Your task to perform on an android device: check android version Image 0: 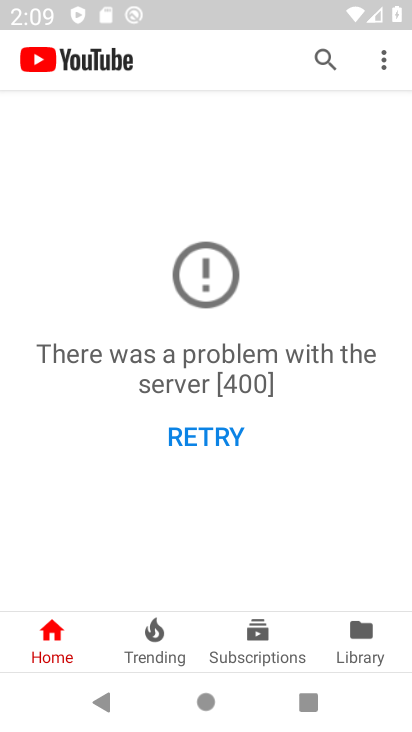
Step 0: press home button
Your task to perform on an android device: check android version Image 1: 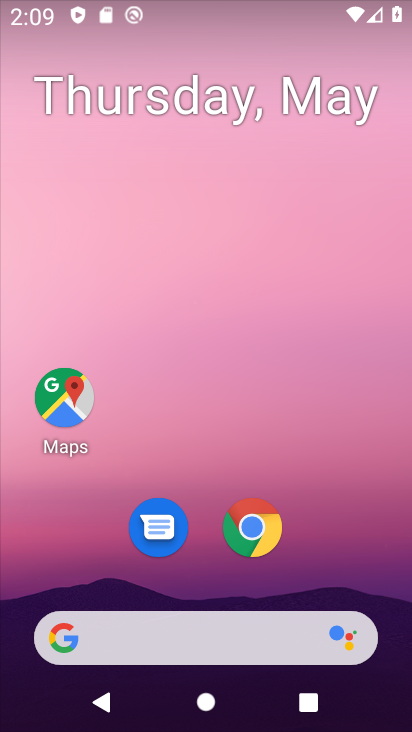
Step 1: drag from (322, 547) to (312, 309)
Your task to perform on an android device: check android version Image 2: 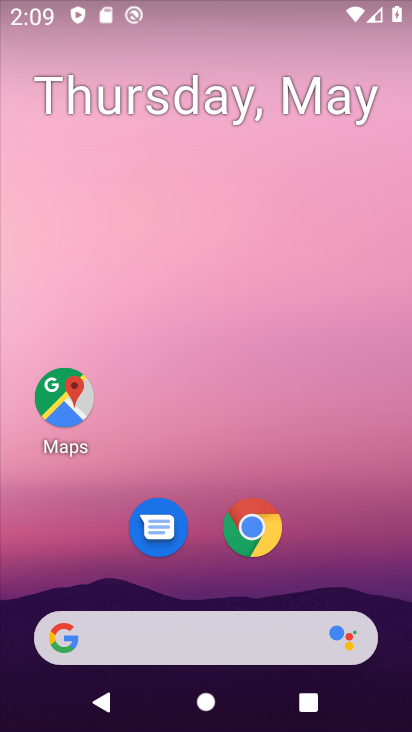
Step 2: drag from (348, 549) to (341, 343)
Your task to perform on an android device: check android version Image 3: 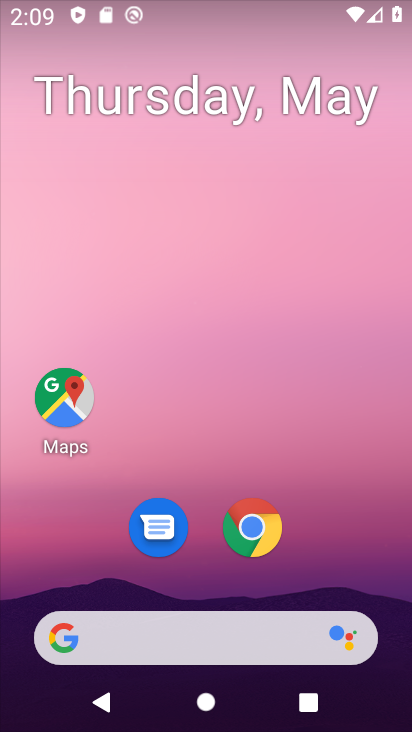
Step 3: drag from (352, 496) to (273, 110)
Your task to perform on an android device: check android version Image 4: 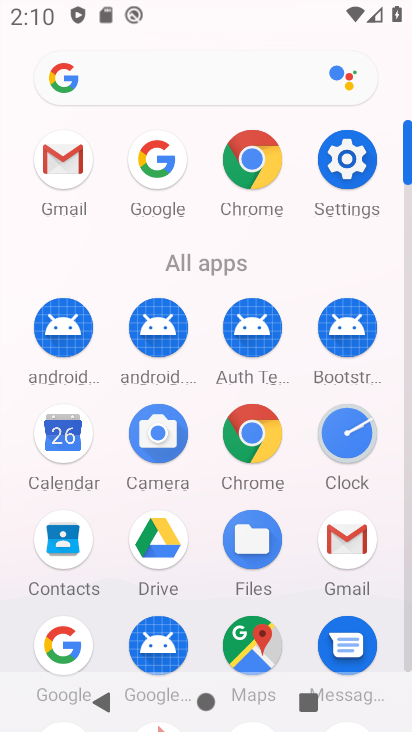
Step 4: click (409, 665)
Your task to perform on an android device: check android version Image 5: 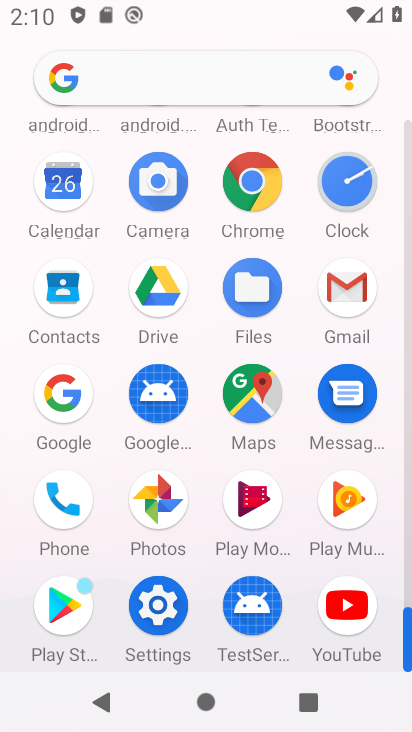
Step 5: click (159, 612)
Your task to perform on an android device: check android version Image 6: 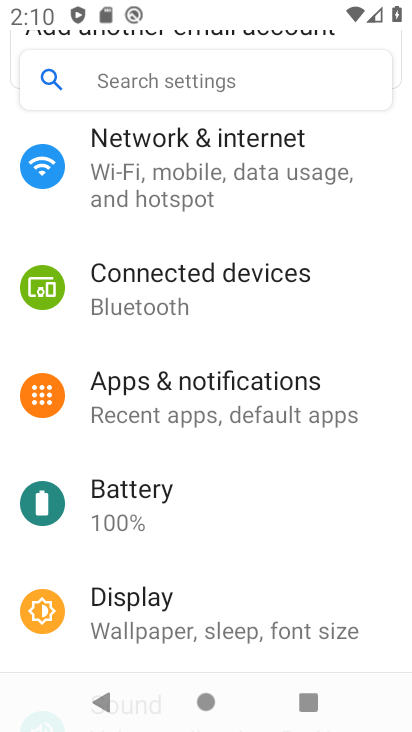
Step 6: drag from (183, 580) to (129, 112)
Your task to perform on an android device: check android version Image 7: 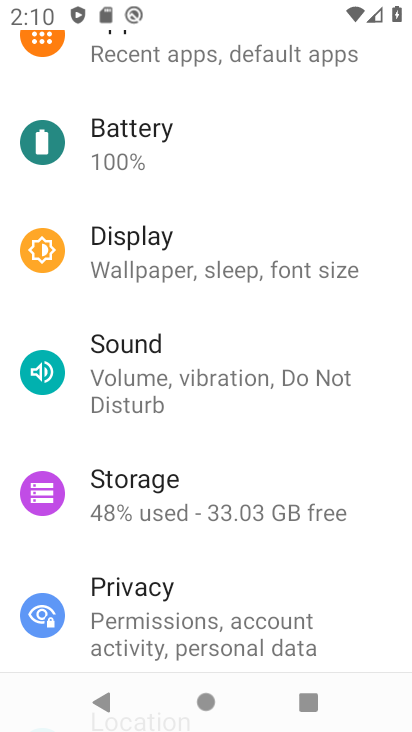
Step 7: drag from (254, 548) to (221, 108)
Your task to perform on an android device: check android version Image 8: 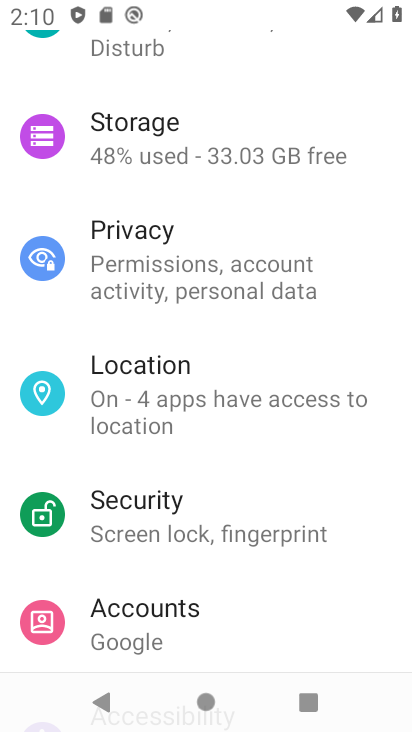
Step 8: drag from (281, 713) to (244, 157)
Your task to perform on an android device: check android version Image 9: 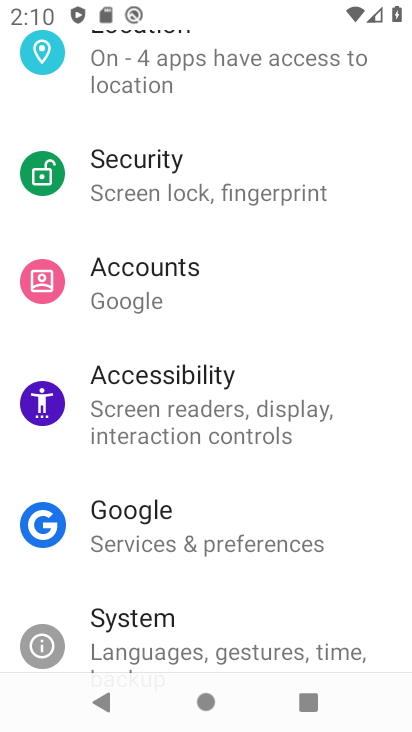
Step 9: drag from (268, 631) to (240, 178)
Your task to perform on an android device: check android version Image 10: 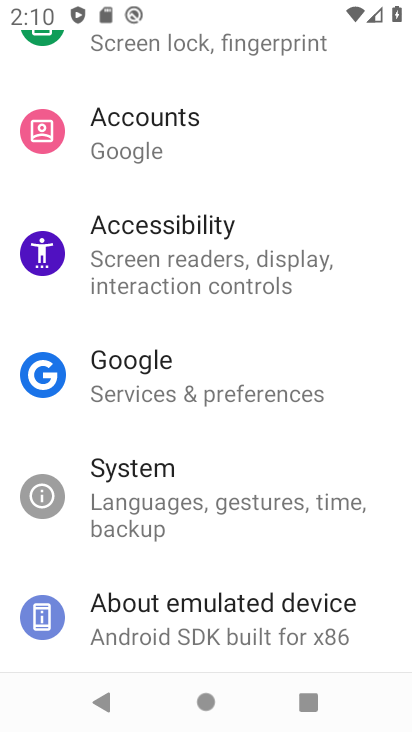
Step 10: drag from (217, 556) to (202, 220)
Your task to perform on an android device: check android version Image 11: 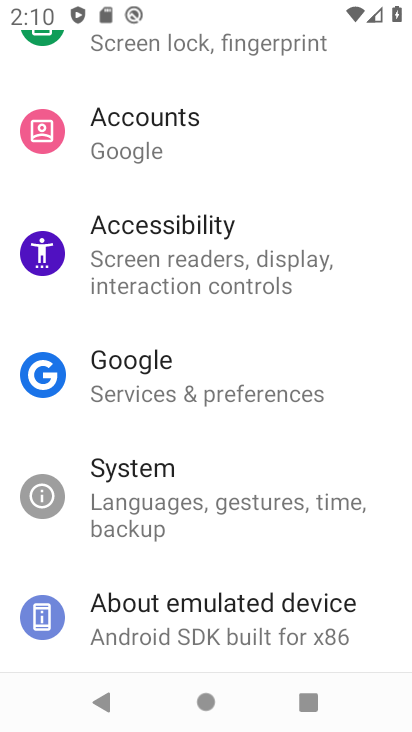
Step 11: click (258, 625)
Your task to perform on an android device: check android version Image 12: 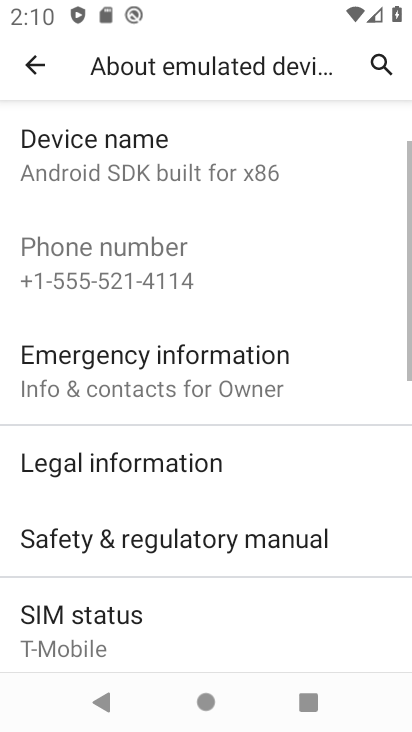
Step 12: drag from (161, 630) to (200, 293)
Your task to perform on an android device: check android version Image 13: 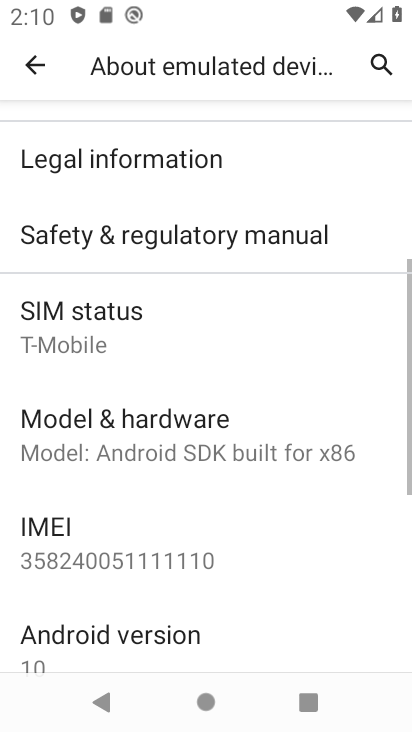
Step 13: click (164, 633)
Your task to perform on an android device: check android version Image 14: 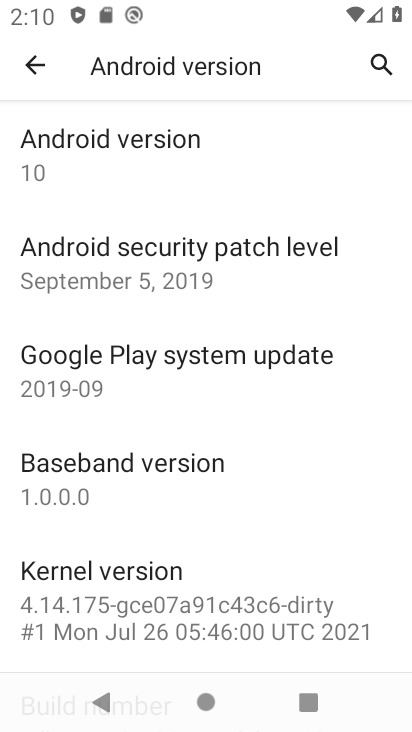
Step 14: task complete